Your task to perform on an android device: Clear all items from cart on ebay.com. Add "macbook pro 13 inch" to the cart on ebay.com Image 0: 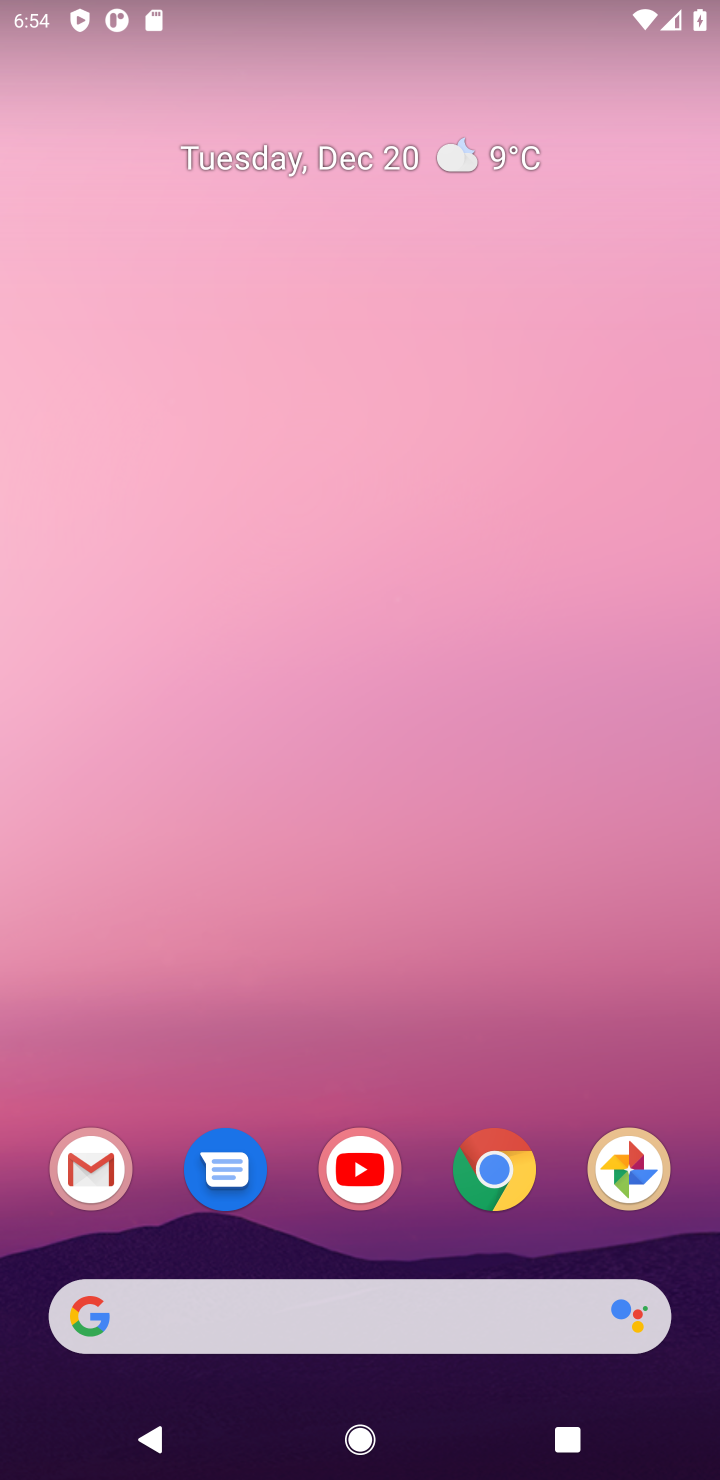
Step 0: click (524, 1171)
Your task to perform on an android device: Clear all items from cart on ebay.com. Add "macbook pro 13 inch" to the cart on ebay.com Image 1: 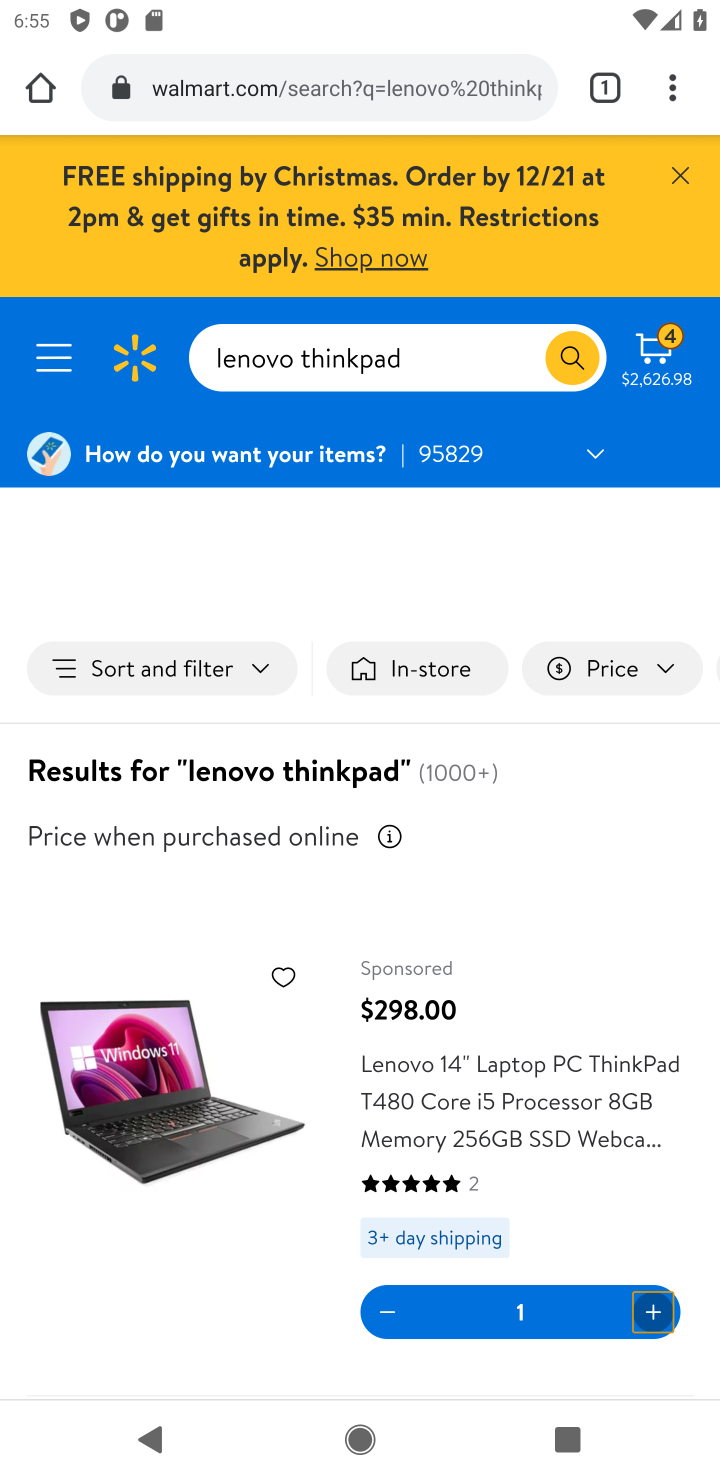
Step 1: click (269, 101)
Your task to perform on an android device: Clear all items from cart on ebay.com. Add "macbook pro 13 inch" to the cart on ebay.com Image 2: 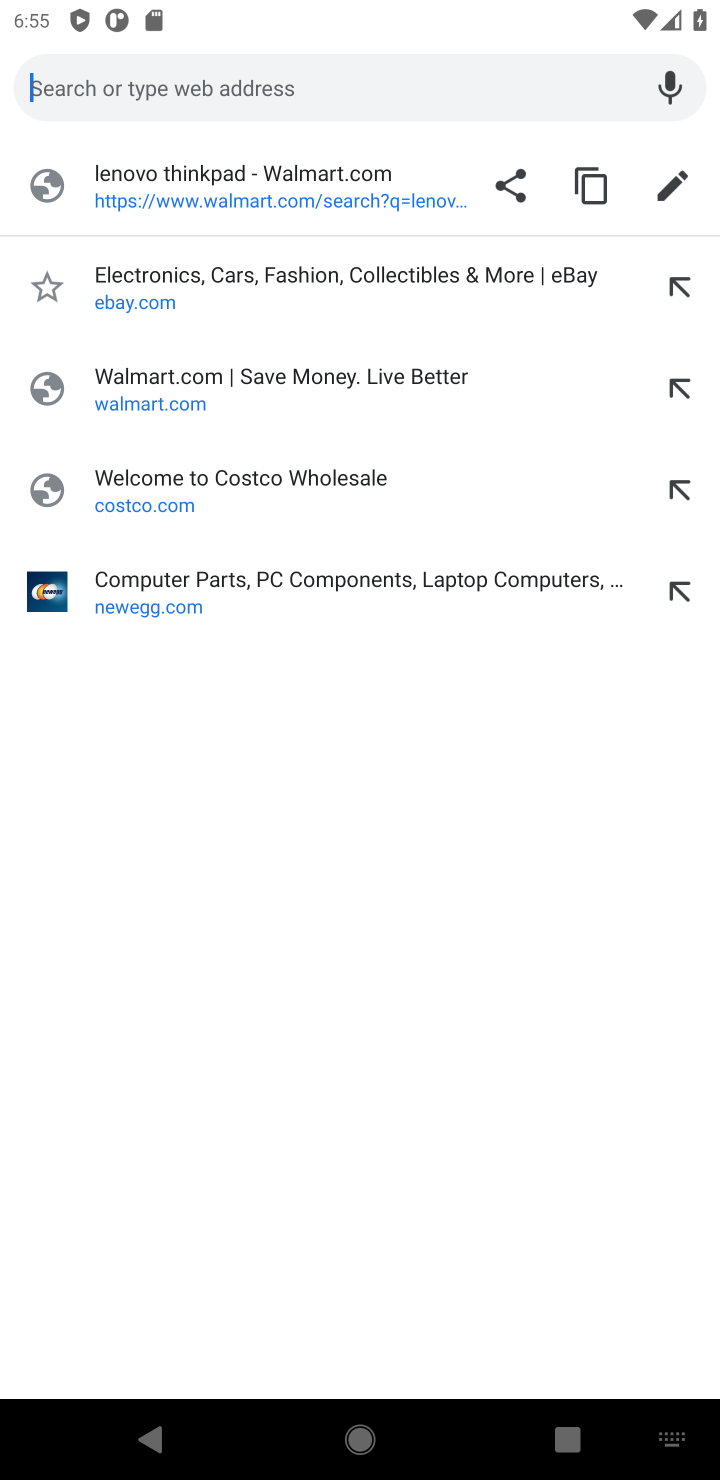
Step 2: type "ebay"
Your task to perform on an android device: Clear all items from cart on ebay.com. Add "macbook pro 13 inch" to the cart on ebay.com Image 3: 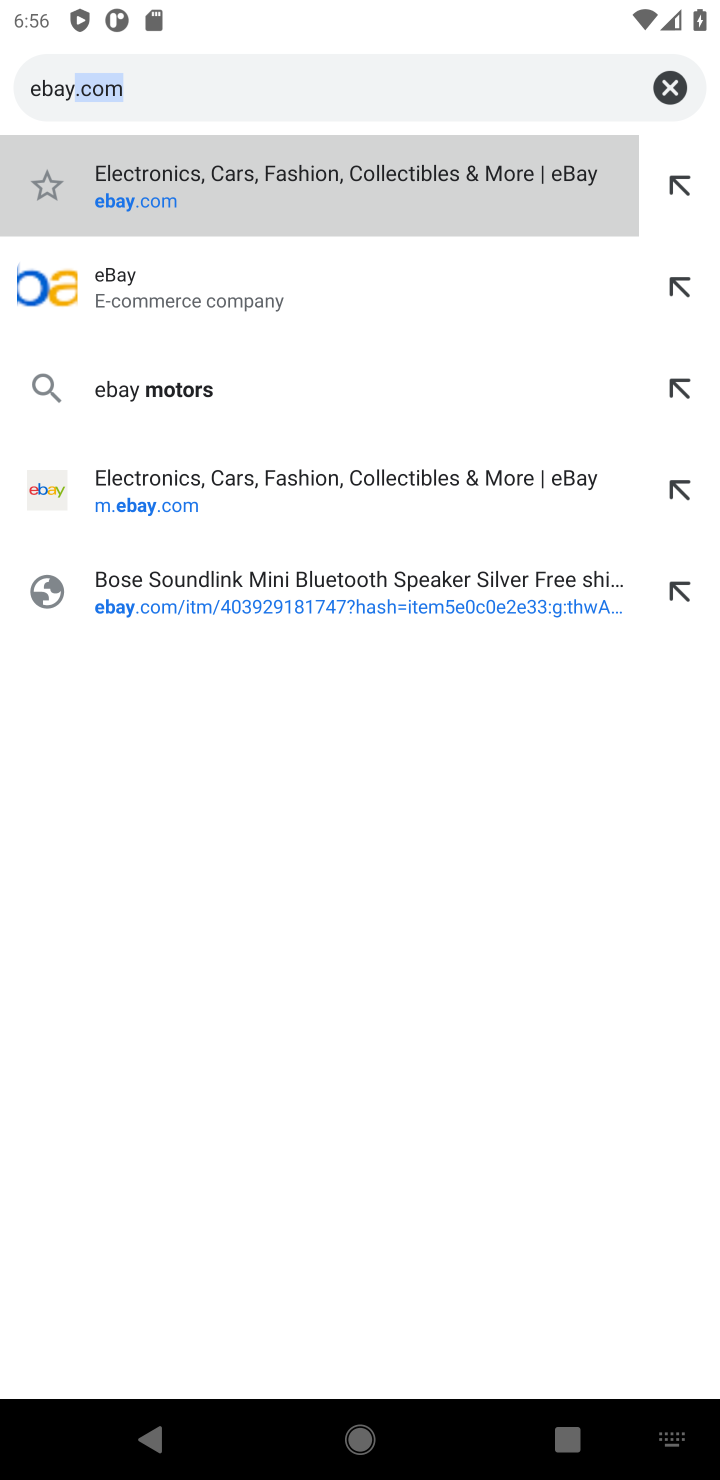
Step 3: click (150, 208)
Your task to perform on an android device: Clear all items from cart on ebay.com. Add "macbook pro 13 inch" to the cart on ebay.com Image 4: 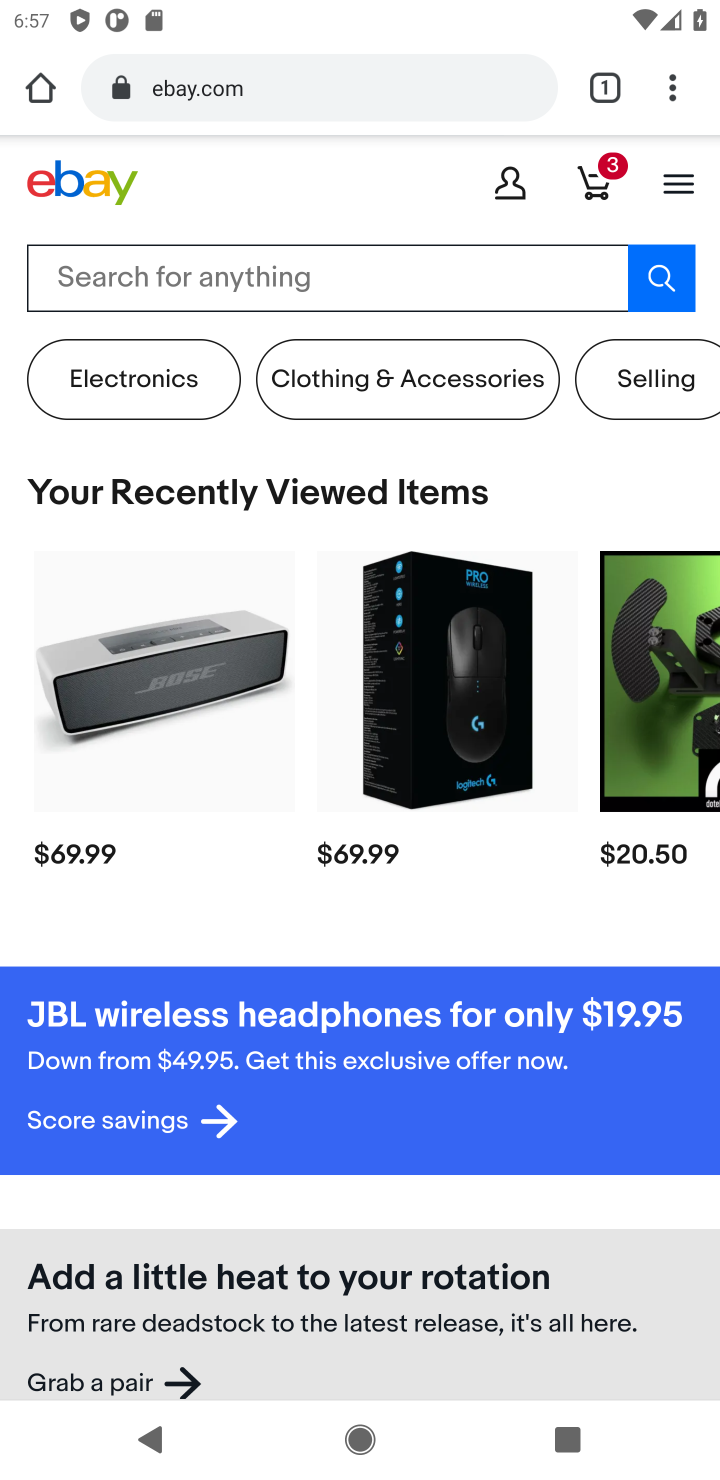
Step 4: task complete